Your task to perform on an android device: Find coffee shops on Maps Image 0: 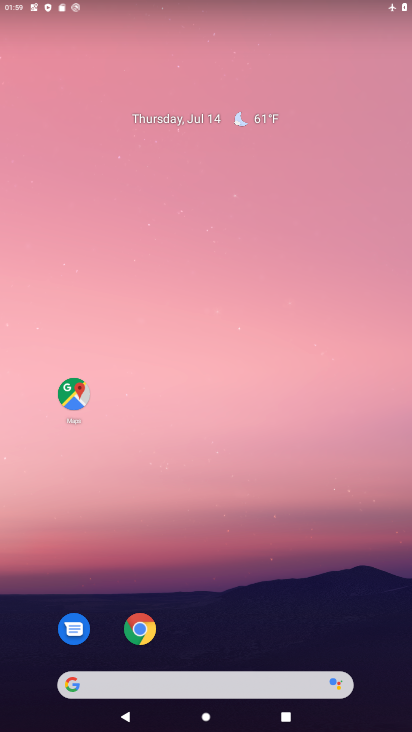
Step 0: drag from (255, 623) to (273, 166)
Your task to perform on an android device: Find coffee shops on Maps Image 1: 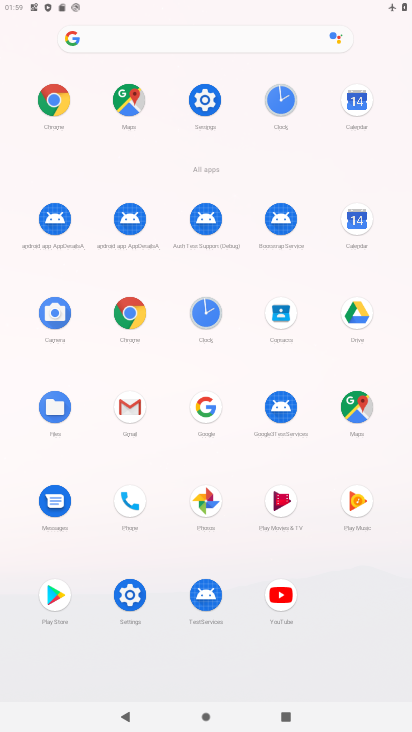
Step 1: click (364, 395)
Your task to perform on an android device: Find coffee shops on Maps Image 2: 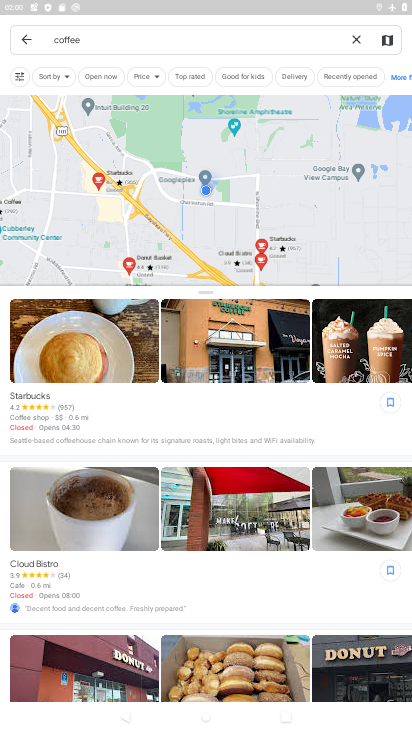
Step 2: task complete